Your task to perform on an android device: toggle pop-ups in chrome Image 0: 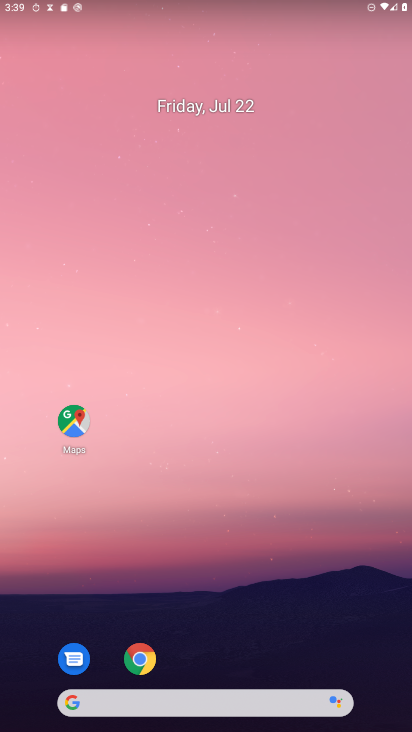
Step 0: drag from (235, 494) to (262, 161)
Your task to perform on an android device: toggle pop-ups in chrome Image 1: 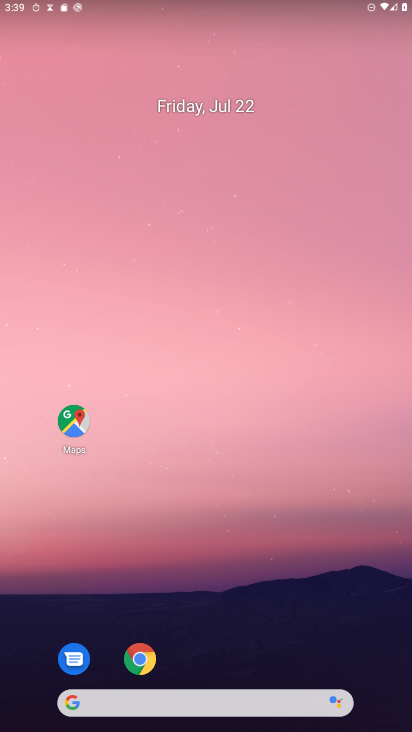
Step 1: drag from (253, 635) to (267, 138)
Your task to perform on an android device: toggle pop-ups in chrome Image 2: 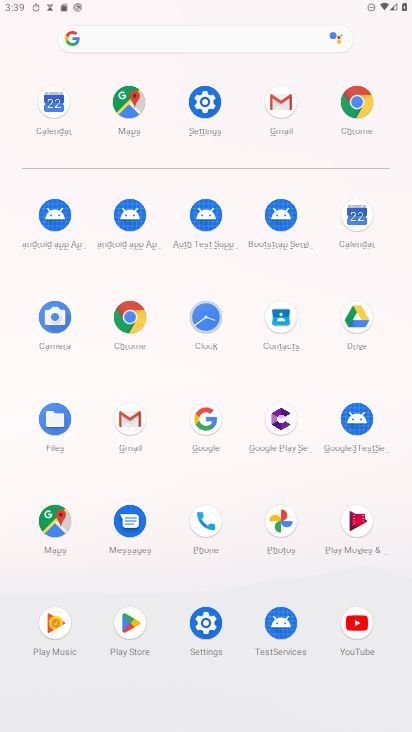
Step 2: click (351, 114)
Your task to perform on an android device: toggle pop-ups in chrome Image 3: 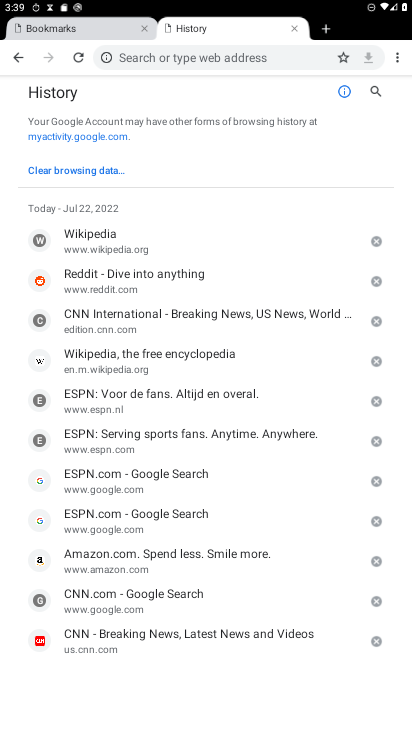
Step 3: drag from (404, 56) to (283, 264)
Your task to perform on an android device: toggle pop-ups in chrome Image 4: 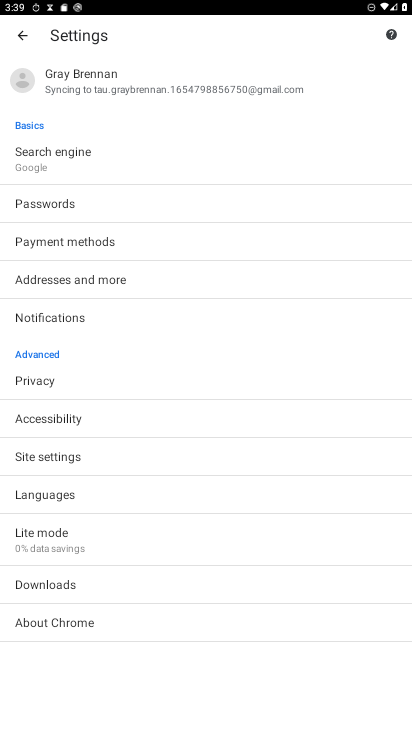
Step 4: click (65, 457)
Your task to perform on an android device: toggle pop-ups in chrome Image 5: 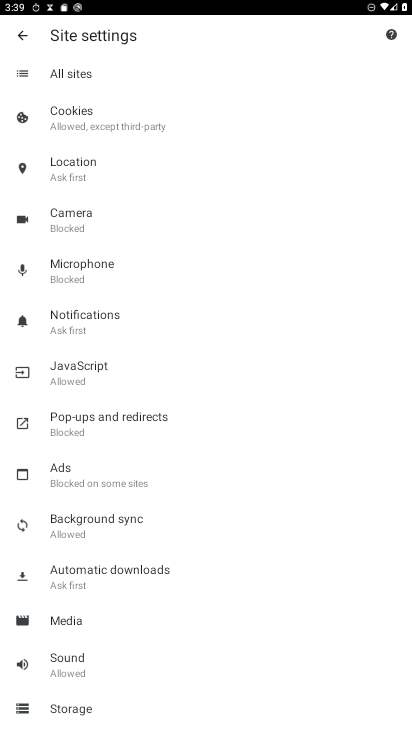
Step 5: click (71, 431)
Your task to perform on an android device: toggle pop-ups in chrome Image 6: 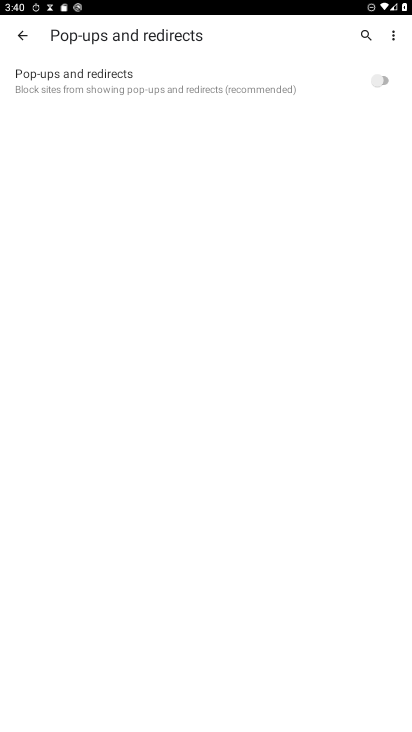
Step 6: click (387, 78)
Your task to perform on an android device: toggle pop-ups in chrome Image 7: 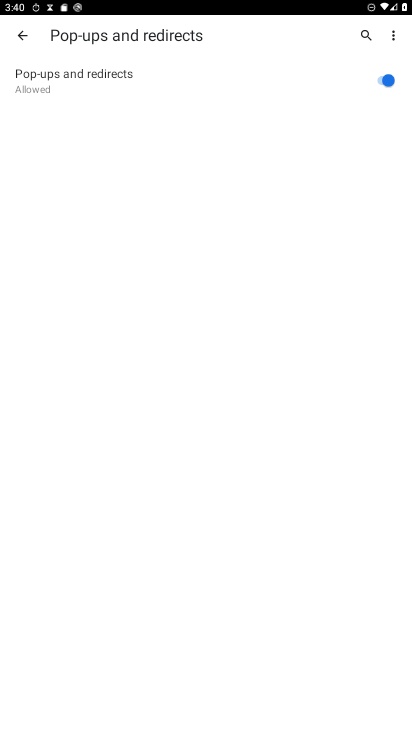
Step 7: task complete